Your task to perform on an android device: Open Google Maps and go to "Timeline" Image 0: 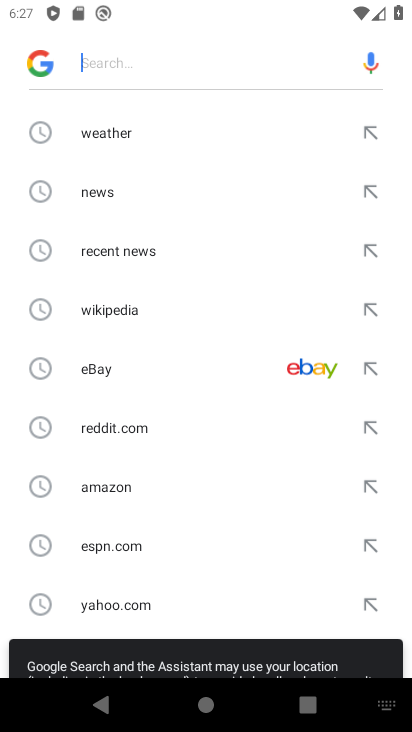
Step 0: press home button
Your task to perform on an android device: Open Google Maps and go to "Timeline" Image 1: 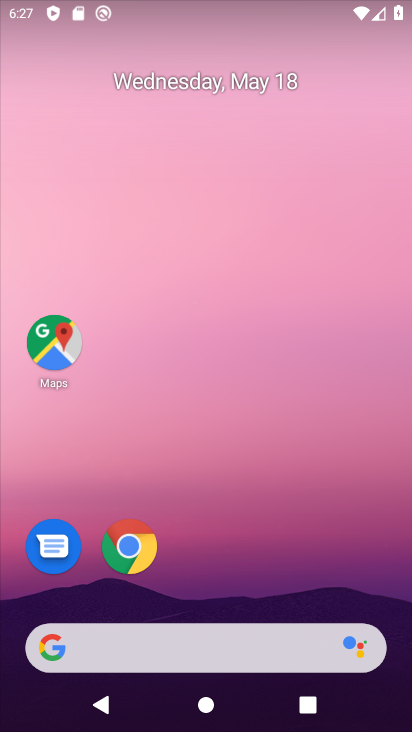
Step 1: drag from (367, 589) to (342, 266)
Your task to perform on an android device: Open Google Maps and go to "Timeline" Image 2: 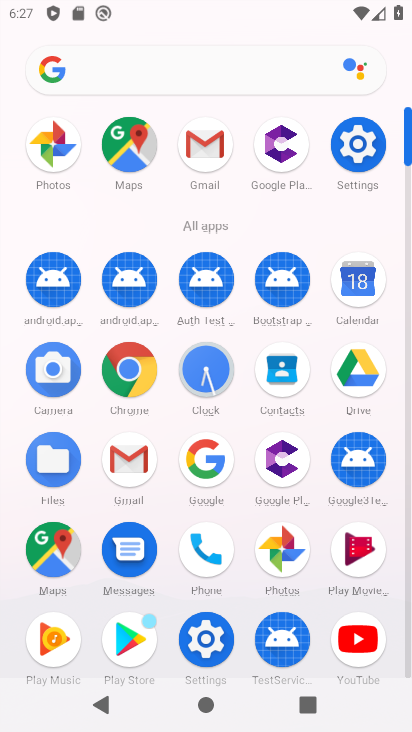
Step 2: click (127, 161)
Your task to perform on an android device: Open Google Maps and go to "Timeline" Image 3: 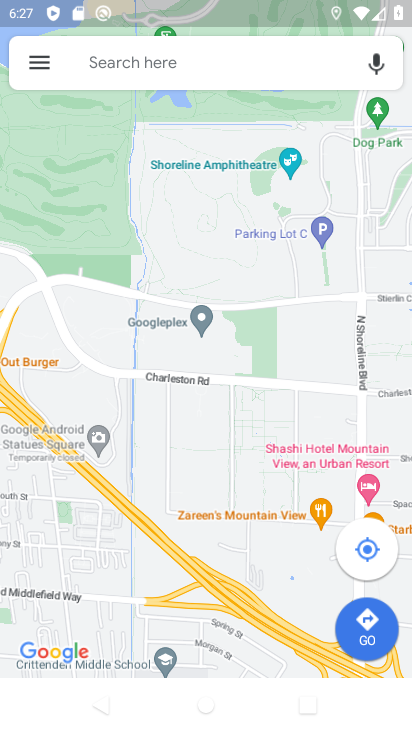
Step 3: click (28, 63)
Your task to perform on an android device: Open Google Maps and go to "Timeline" Image 4: 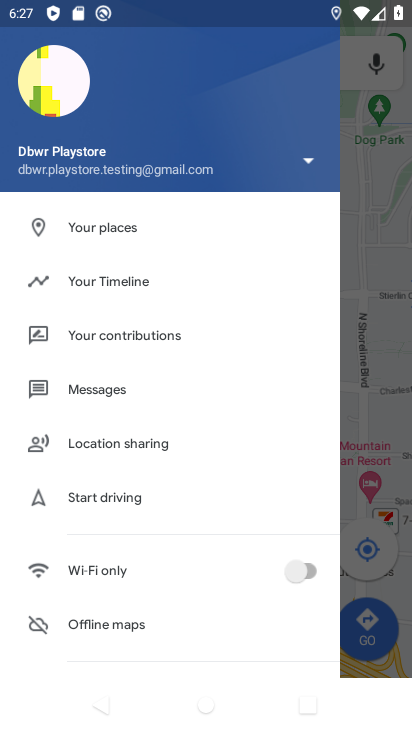
Step 4: click (189, 284)
Your task to perform on an android device: Open Google Maps and go to "Timeline" Image 5: 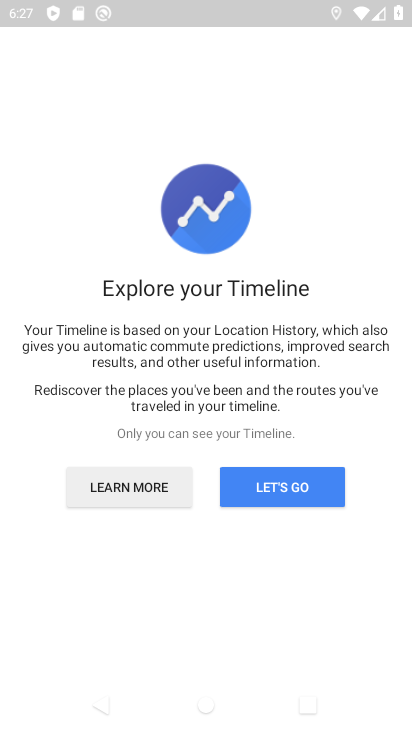
Step 5: task complete